Your task to perform on an android device: toggle pop-ups in chrome Image 0: 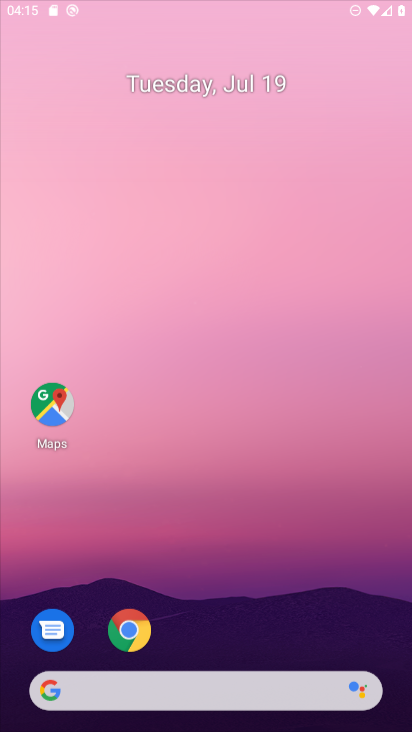
Step 0: click (151, 279)
Your task to perform on an android device: toggle pop-ups in chrome Image 1: 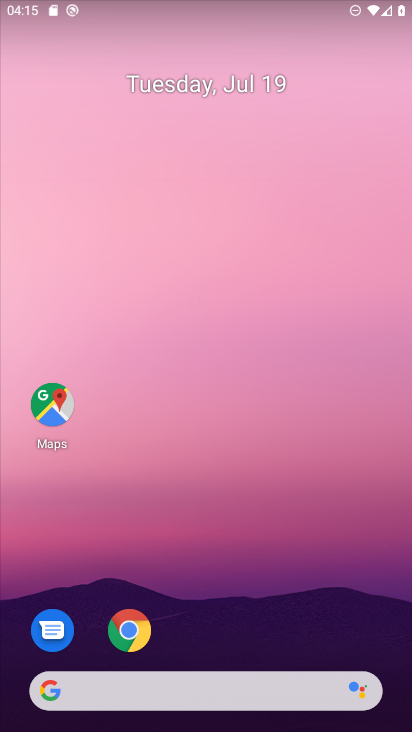
Step 1: drag from (214, 600) to (183, 37)
Your task to perform on an android device: toggle pop-ups in chrome Image 2: 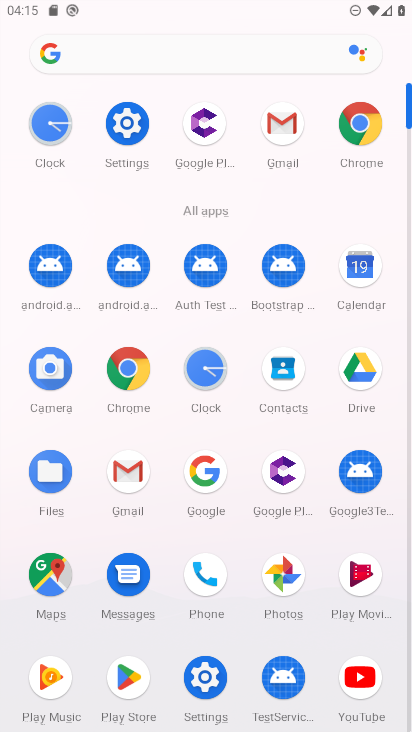
Step 2: click (358, 129)
Your task to perform on an android device: toggle pop-ups in chrome Image 3: 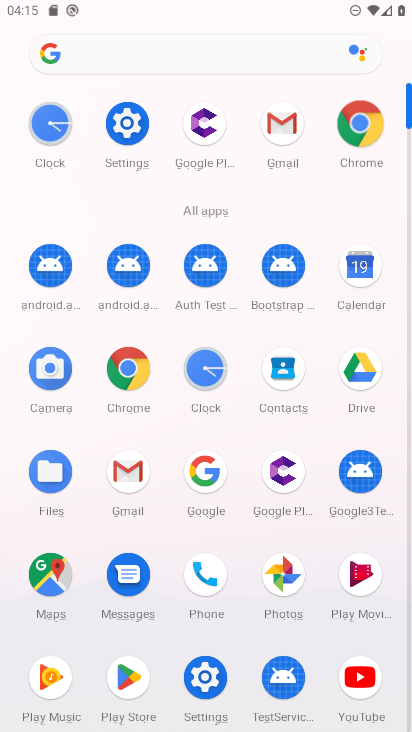
Step 3: click (361, 128)
Your task to perform on an android device: toggle pop-ups in chrome Image 4: 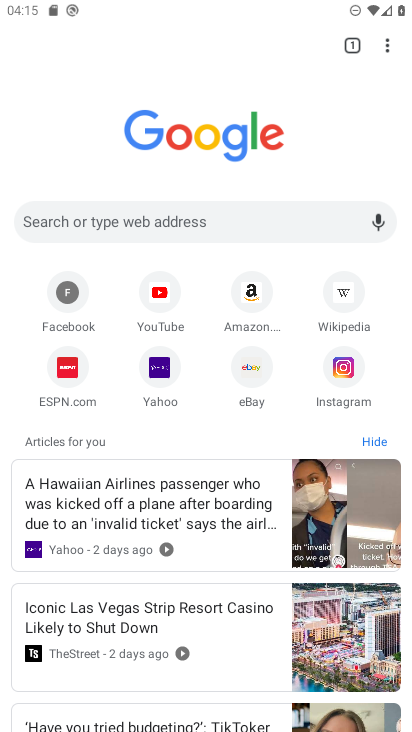
Step 4: drag from (380, 49) to (234, 387)
Your task to perform on an android device: toggle pop-ups in chrome Image 5: 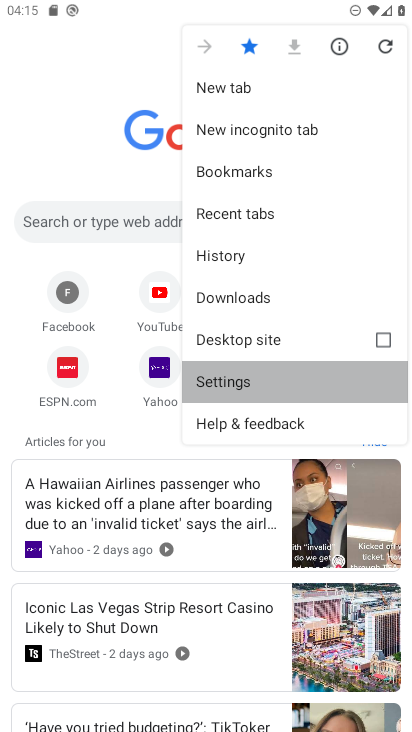
Step 5: click (233, 391)
Your task to perform on an android device: toggle pop-ups in chrome Image 6: 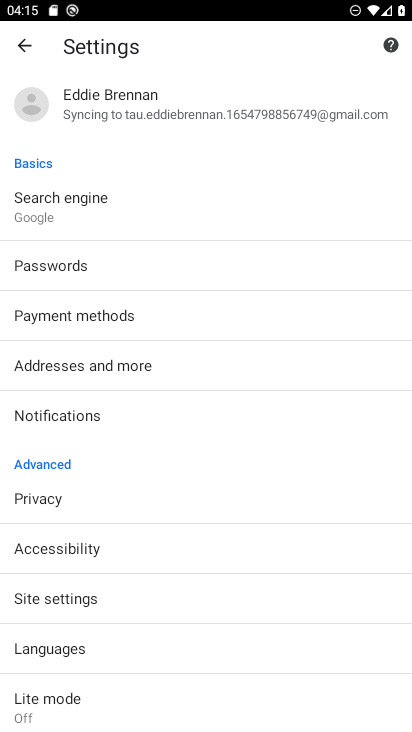
Step 6: drag from (84, 636) to (30, 158)
Your task to perform on an android device: toggle pop-ups in chrome Image 7: 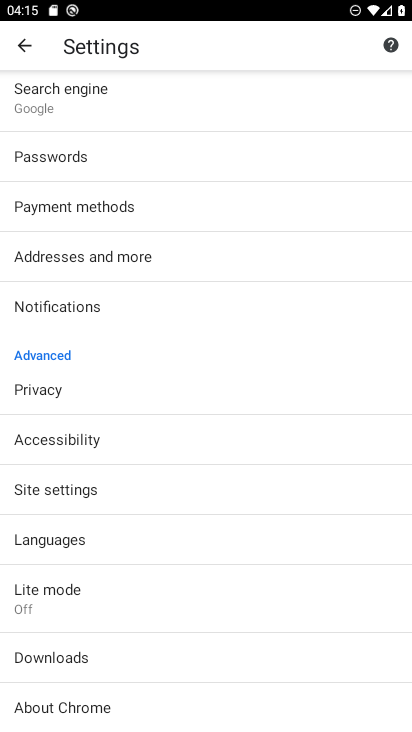
Step 7: click (55, 490)
Your task to perform on an android device: toggle pop-ups in chrome Image 8: 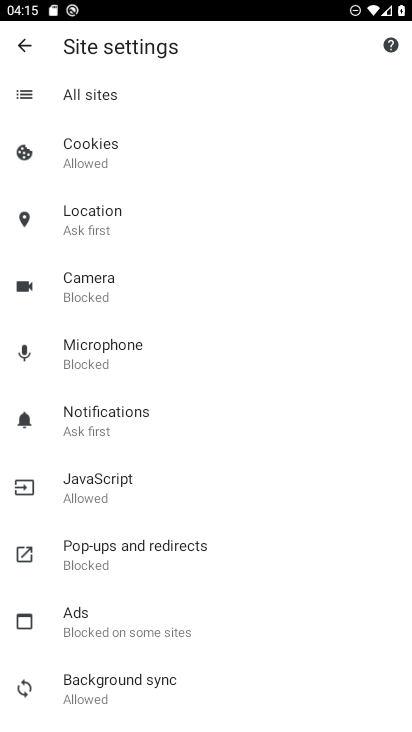
Step 8: click (95, 548)
Your task to perform on an android device: toggle pop-ups in chrome Image 9: 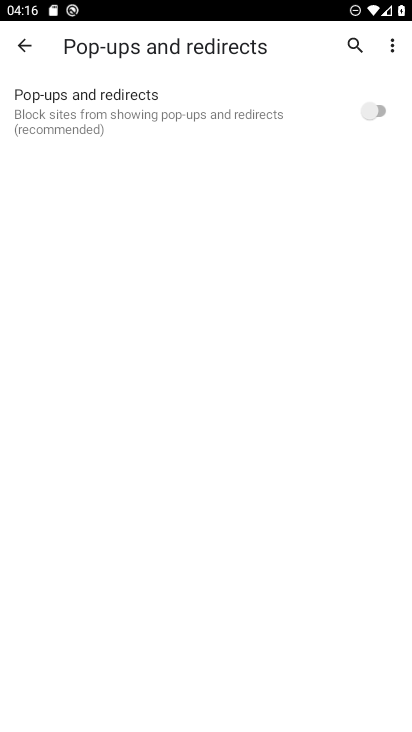
Step 9: click (375, 107)
Your task to perform on an android device: toggle pop-ups in chrome Image 10: 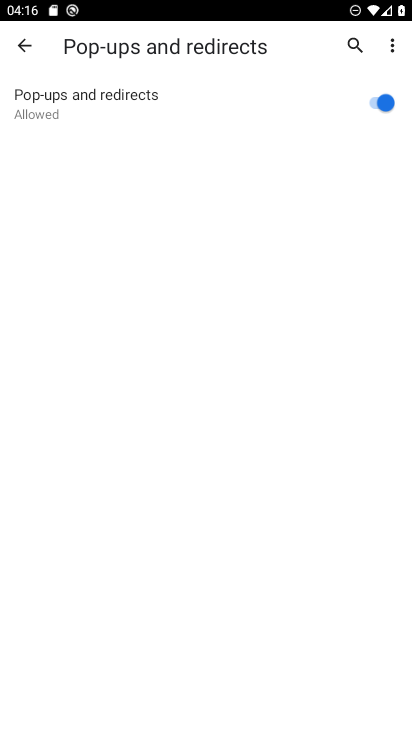
Step 10: click (382, 106)
Your task to perform on an android device: toggle pop-ups in chrome Image 11: 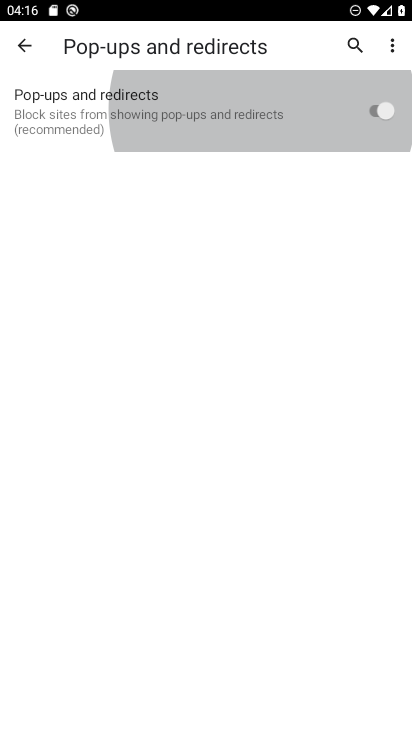
Step 11: click (384, 105)
Your task to perform on an android device: toggle pop-ups in chrome Image 12: 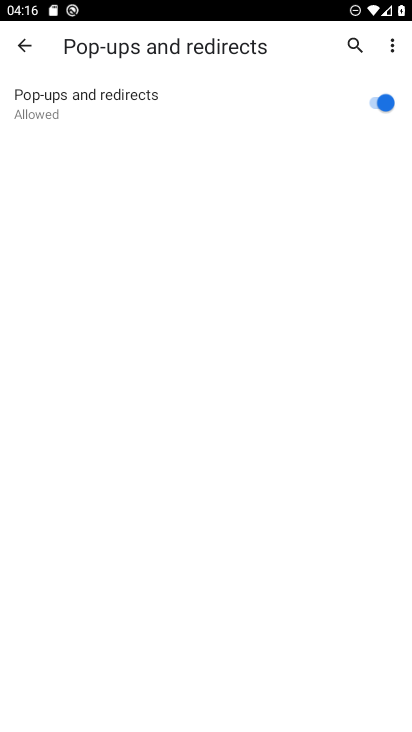
Step 12: click (379, 113)
Your task to perform on an android device: toggle pop-ups in chrome Image 13: 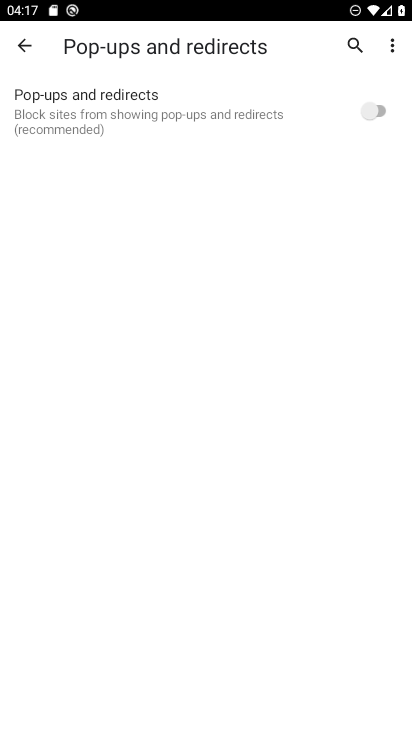
Step 13: task complete